Your task to perform on an android device: change notifications settings Image 0: 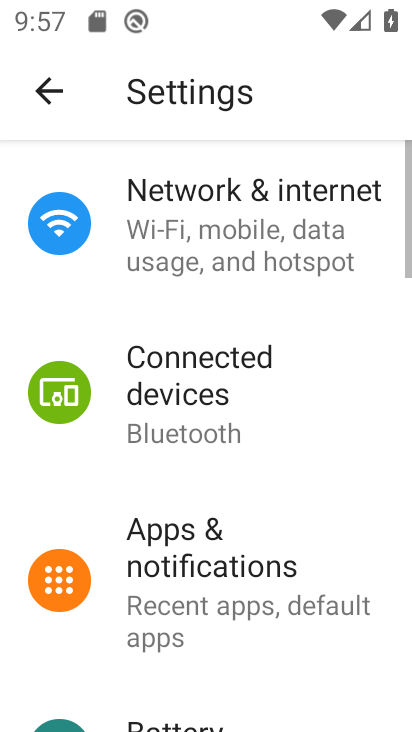
Step 0: click (248, 549)
Your task to perform on an android device: change notifications settings Image 1: 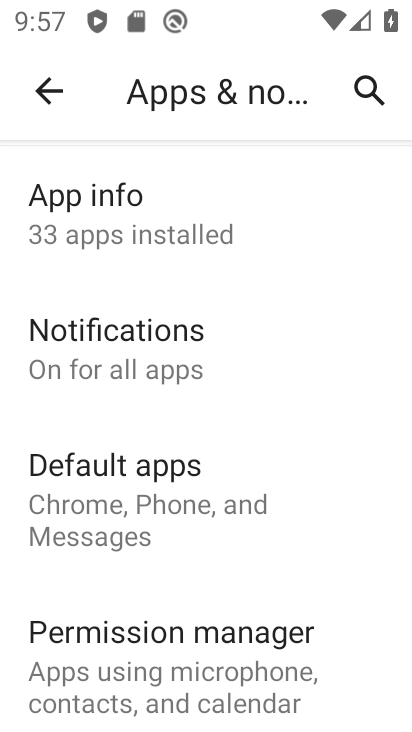
Step 1: click (199, 326)
Your task to perform on an android device: change notifications settings Image 2: 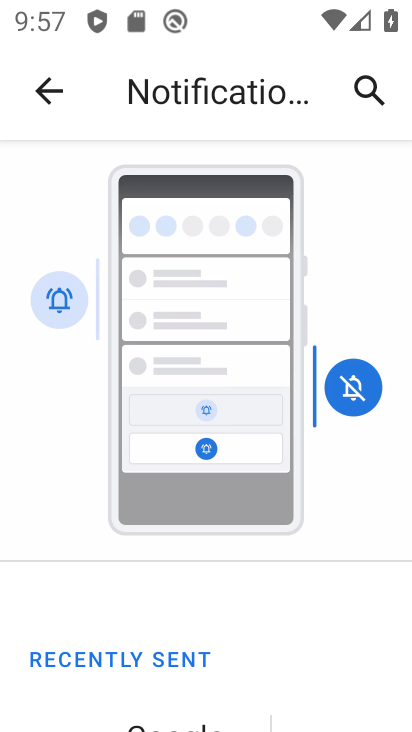
Step 2: drag from (221, 629) to (266, 273)
Your task to perform on an android device: change notifications settings Image 3: 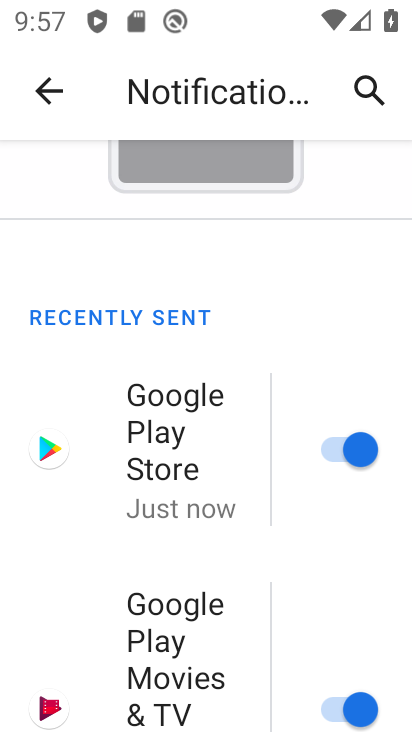
Step 3: click (346, 444)
Your task to perform on an android device: change notifications settings Image 4: 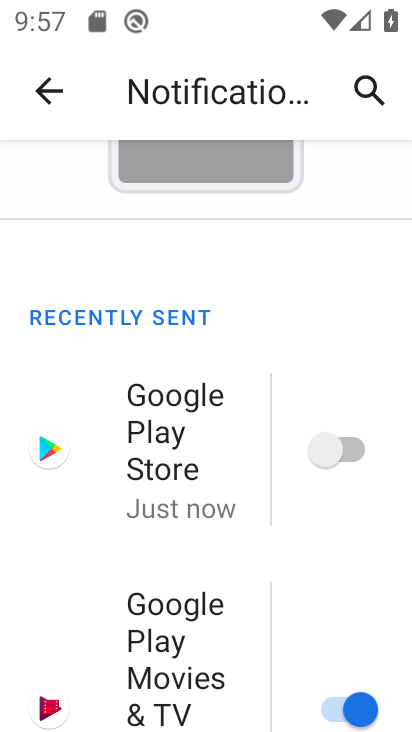
Step 4: task complete